Your task to perform on an android device: Open the phone app and click the voicemail tab. Image 0: 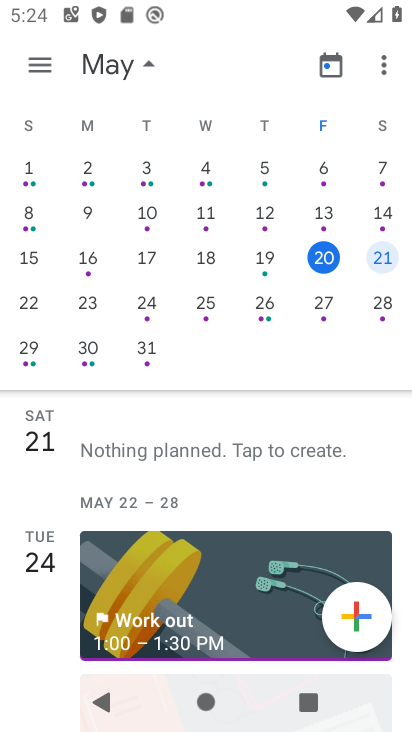
Step 0: press home button
Your task to perform on an android device: Open the phone app and click the voicemail tab. Image 1: 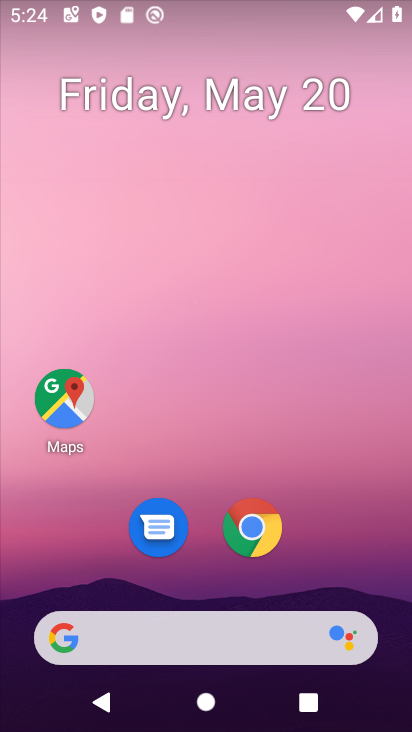
Step 1: drag from (280, 617) to (286, 37)
Your task to perform on an android device: Open the phone app and click the voicemail tab. Image 2: 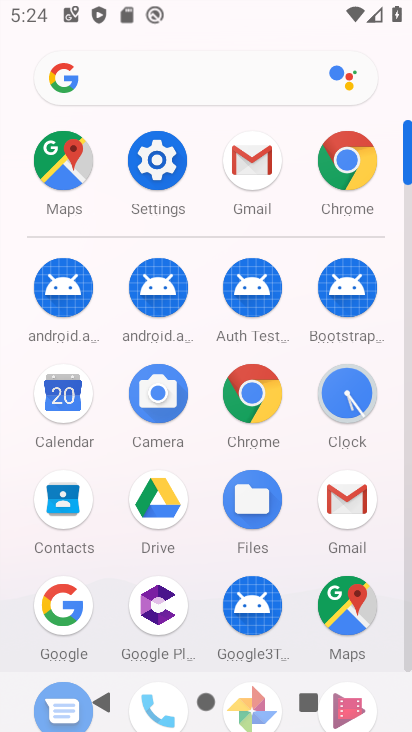
Step 2: drag from (229, 613) to (198, 209)
Your task to perform on an android device: Open the phone app and click the voicemail tab. Image 3: 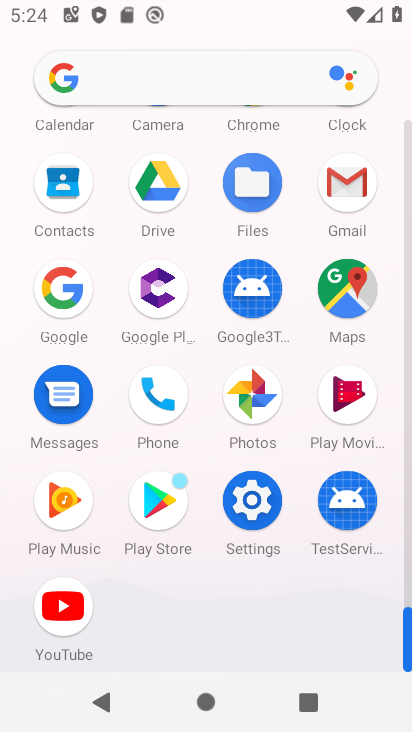
Step 3: click (140, 376)
Your task to perform on an android device: Open the phone app and click the voicemail tab. Image 4: 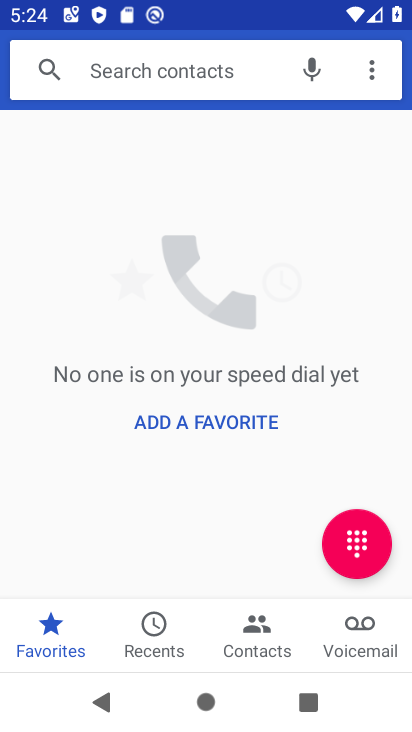
Step 4: click (365, 633)
Your task to perform on an android device: Open the phone app and click the voicemail tab. Image 5: 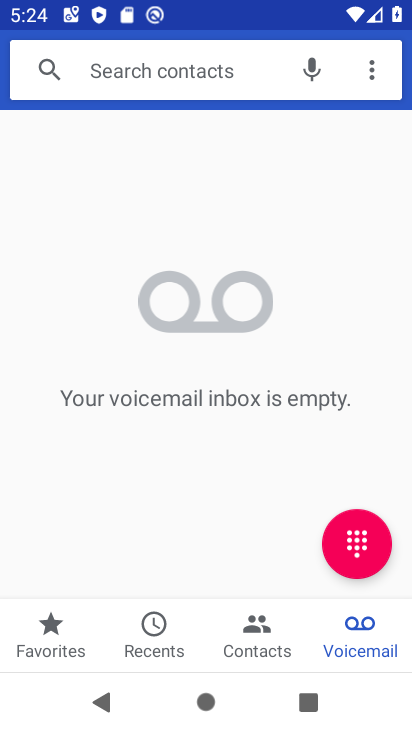
Step 5: task complete